Your task to perform on an android device: Open Wikipedia Image 0: 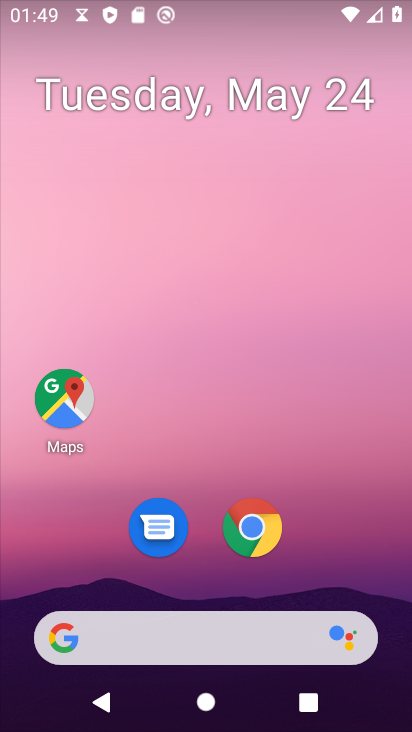
Step 0: press home button
Your task to perform on an android device: Open Wikipedia Image 1: 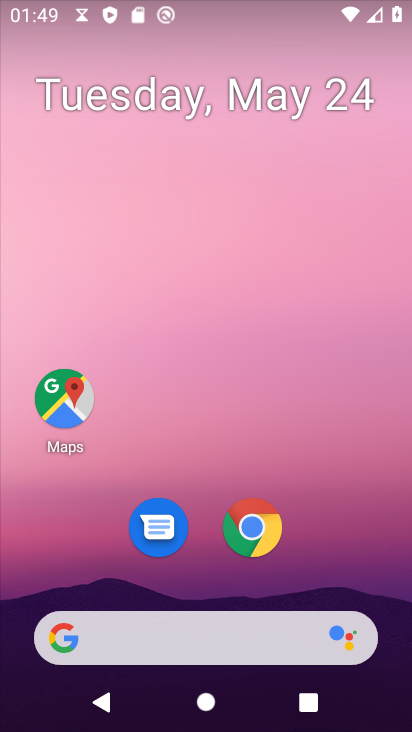
Step 1: click (243, 542)
Your task to perform on an android device: Open Wikipedia Image 2: 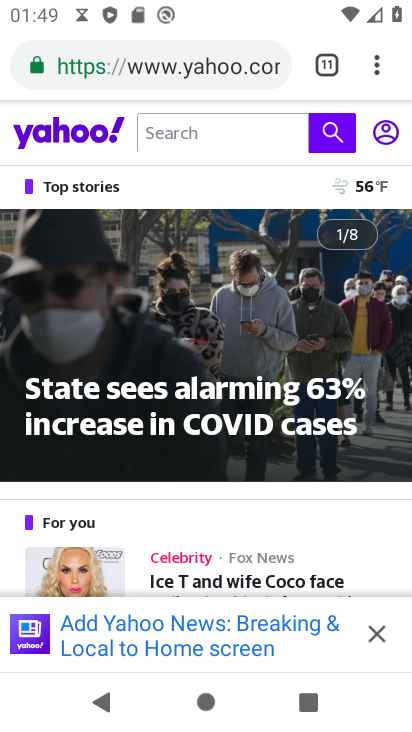
Step 2: drag from (376, 74) to (279, 132)
Your task to perform on an android device: Open Wikipedia Image 3: 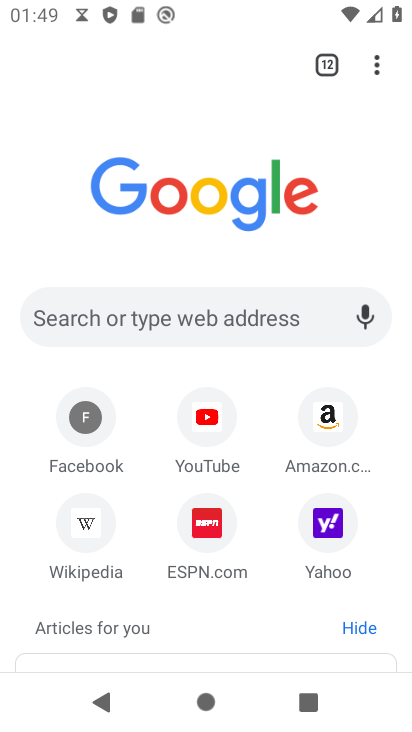
Step 3: click (92, 525)
Your task to perform on an android device: Open Wikipedia Image 4: 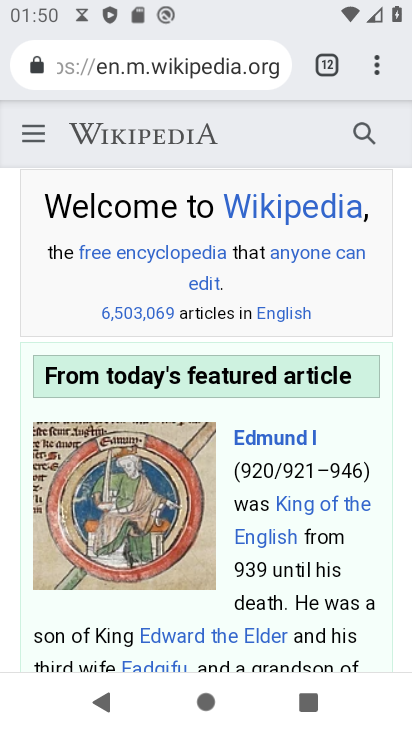
Step 4: task complete